Your task to perform on an android device: Go to Android settings Image 0: 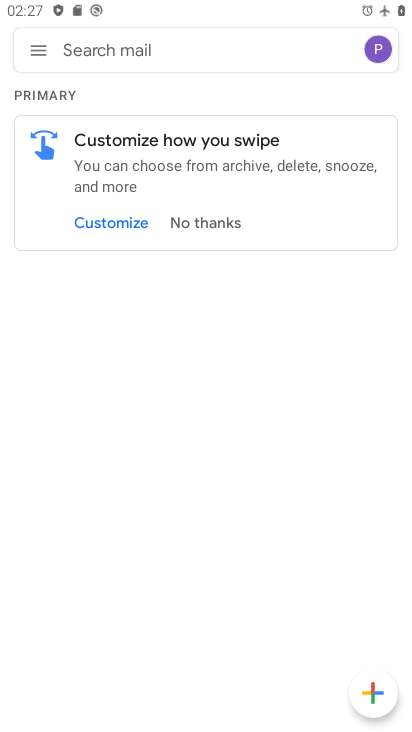
Step 0: press home button
Your task to perform on an android device: Go to Android settings Image 1: 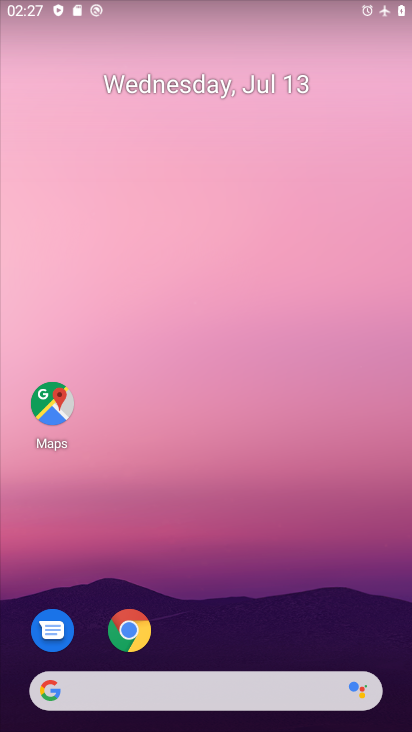
Step 1: drag from (218, 625) to (167, 168)
Your task to perform on an android device: Go to Android settings Image 2: 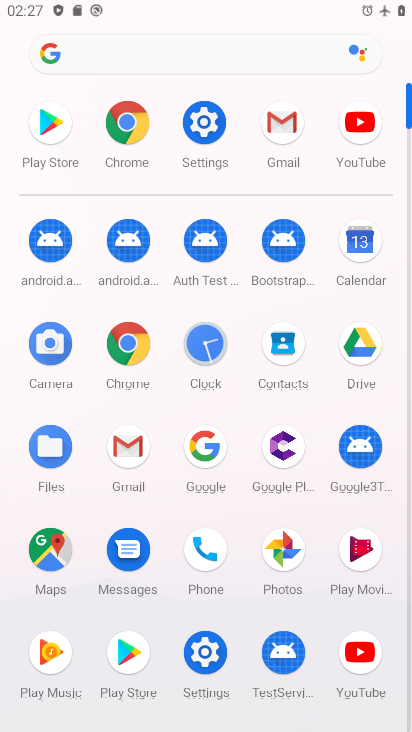
Step 2: click (185, 133)
Your task to perform on an android device: Go to Android settings Image 3: 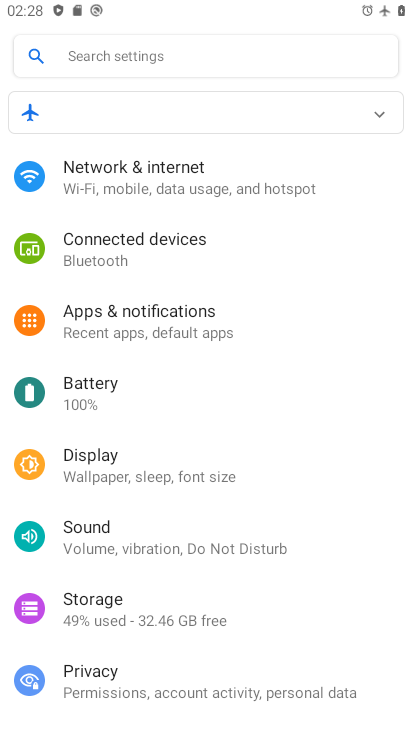
Step 3: task complete